Your task to perform on an android device: toggle data saver in the chrome app Image 0: 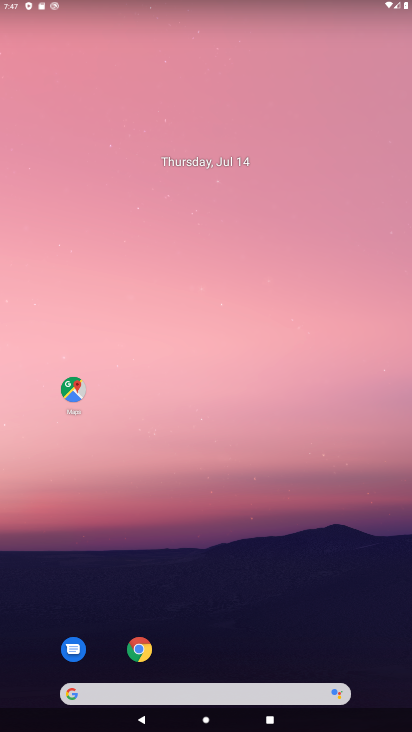
Step 0: drag from (271, 634) to (167, 97)
Your task to perform on an android device: toggle data saver in the chrome app Image 1: 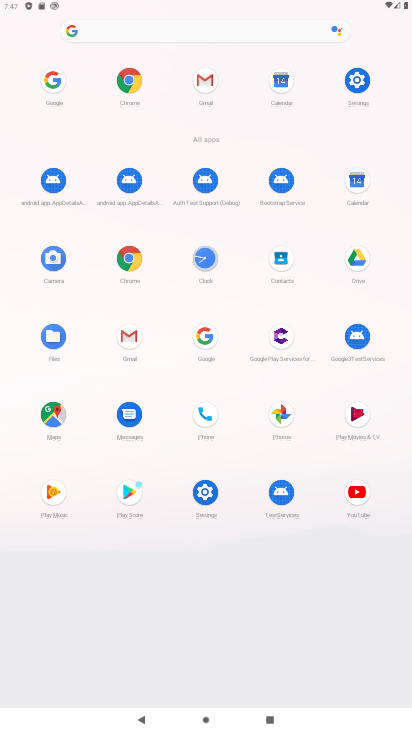
Step 1: click (135, 89)
Your task to perform on an android device: toggle data saver in the chrome app Image 2: 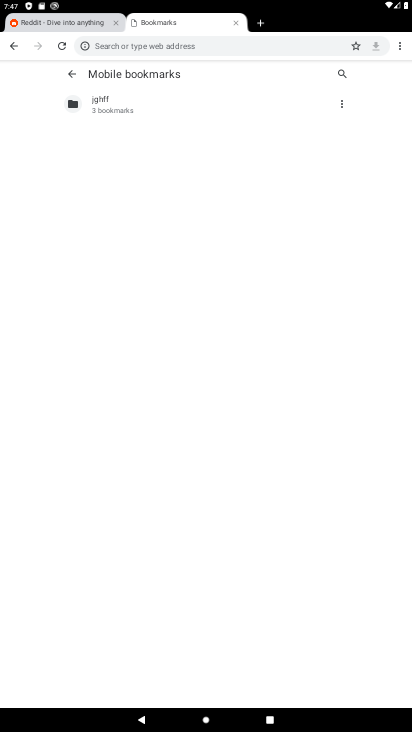
Step 2: drag from (398, 39) to (292, 209)
Your task to perform on an android device: toggle data saver in the chrome app Image 3: 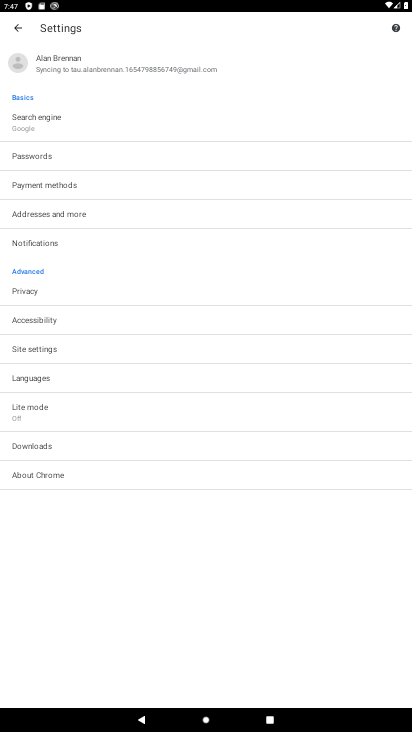
Step 3: click (47, 414)
Your task to perform on an android device: toggle data saver in the chrome app Image 4: 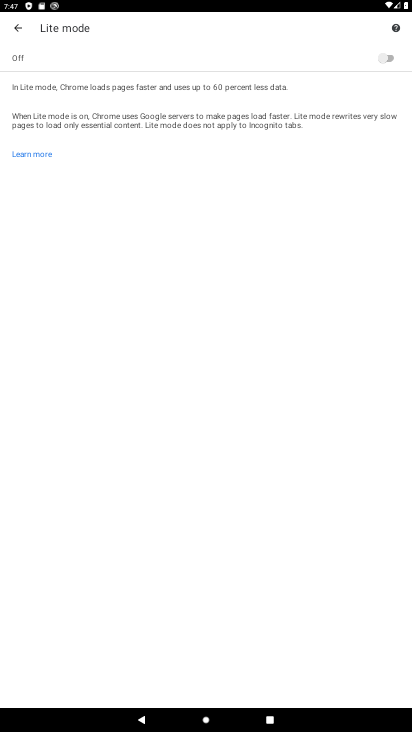
Step 4: click (392, 65)
Your task to perform on an android device: toggle data saver in the chrome app Image 5: 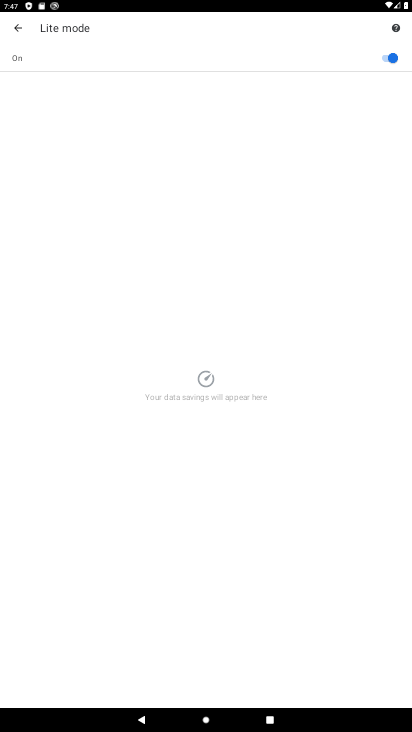
Step 5: task complete